Your task to perform on an android device: Search for sushi restaurants on Maps Image 0: 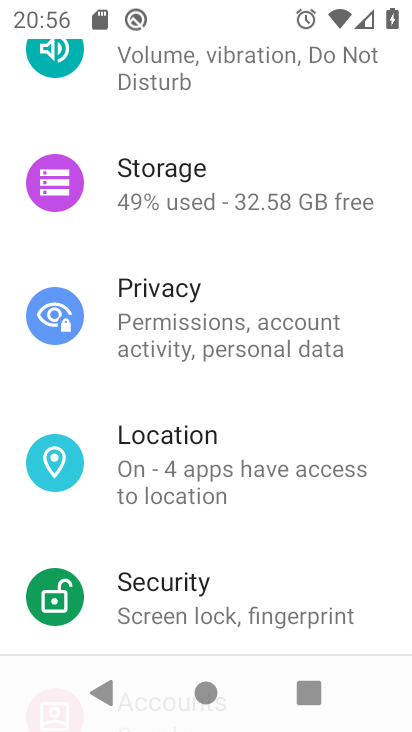
Step 0: press home button
Your task to perform on an android device: Search for sushi restaurants on Maps Image 1: 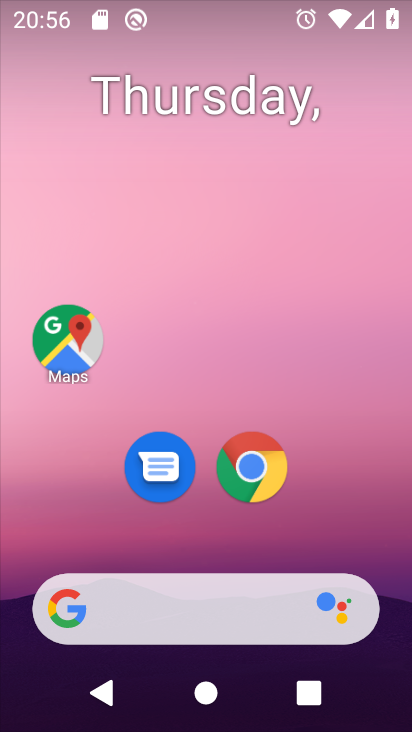
Step 1: click (66, 348)
Your task to perform on an android device: Search for sushi restaurants on Maps Image 2: 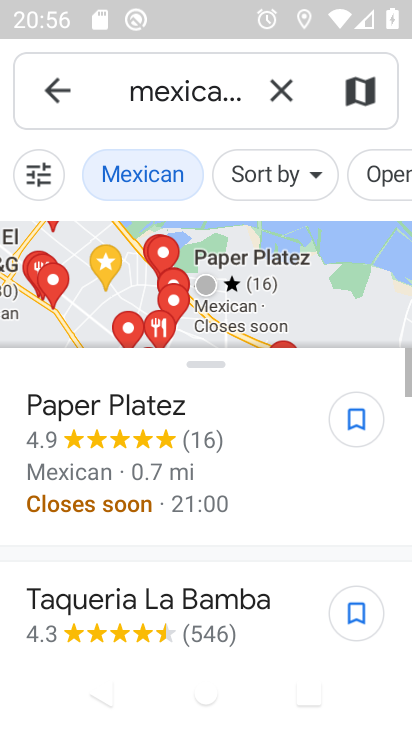
Step 2: click (272, 90)
Your task to perform on an android device: Search for sushi restaurants on Maps Image 3: 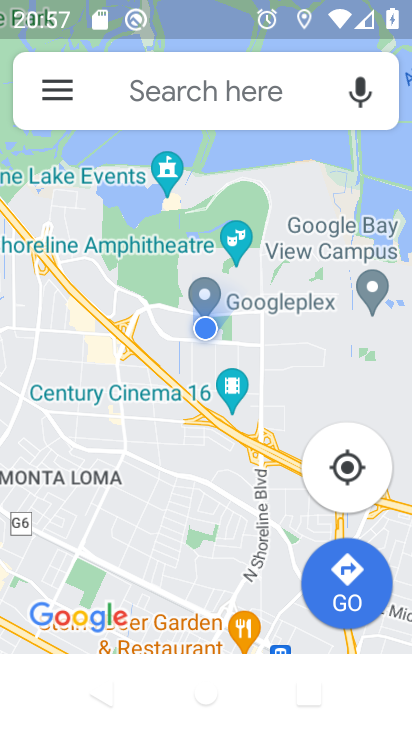
Step 3: click (103, 93)
Your task to perform on an android device: Search for sushi restaurants on Maps Image 4: 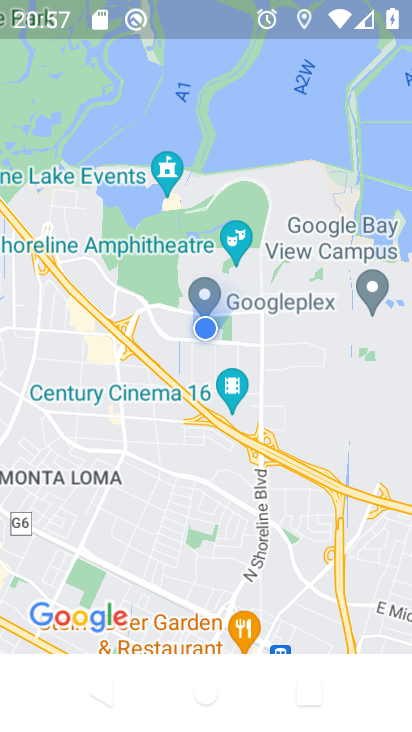
Step 4: type "sushi restaurants "
Your task to perform on an android device: Search for sushi restaurants on Maps Image 5: 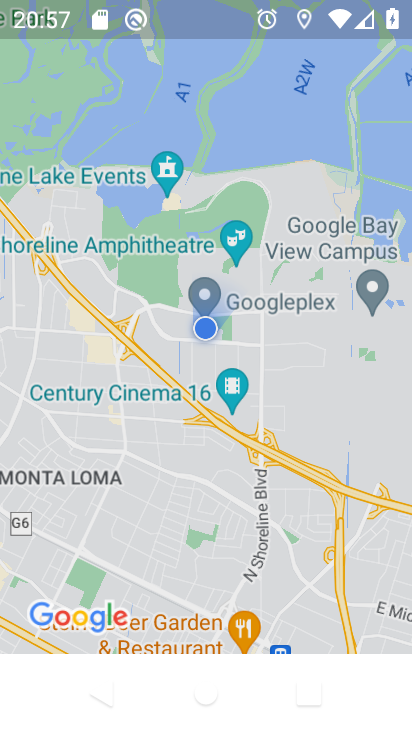
Step 5: task complete